Your task to perform on an android device: Go to sound settings Image 0: 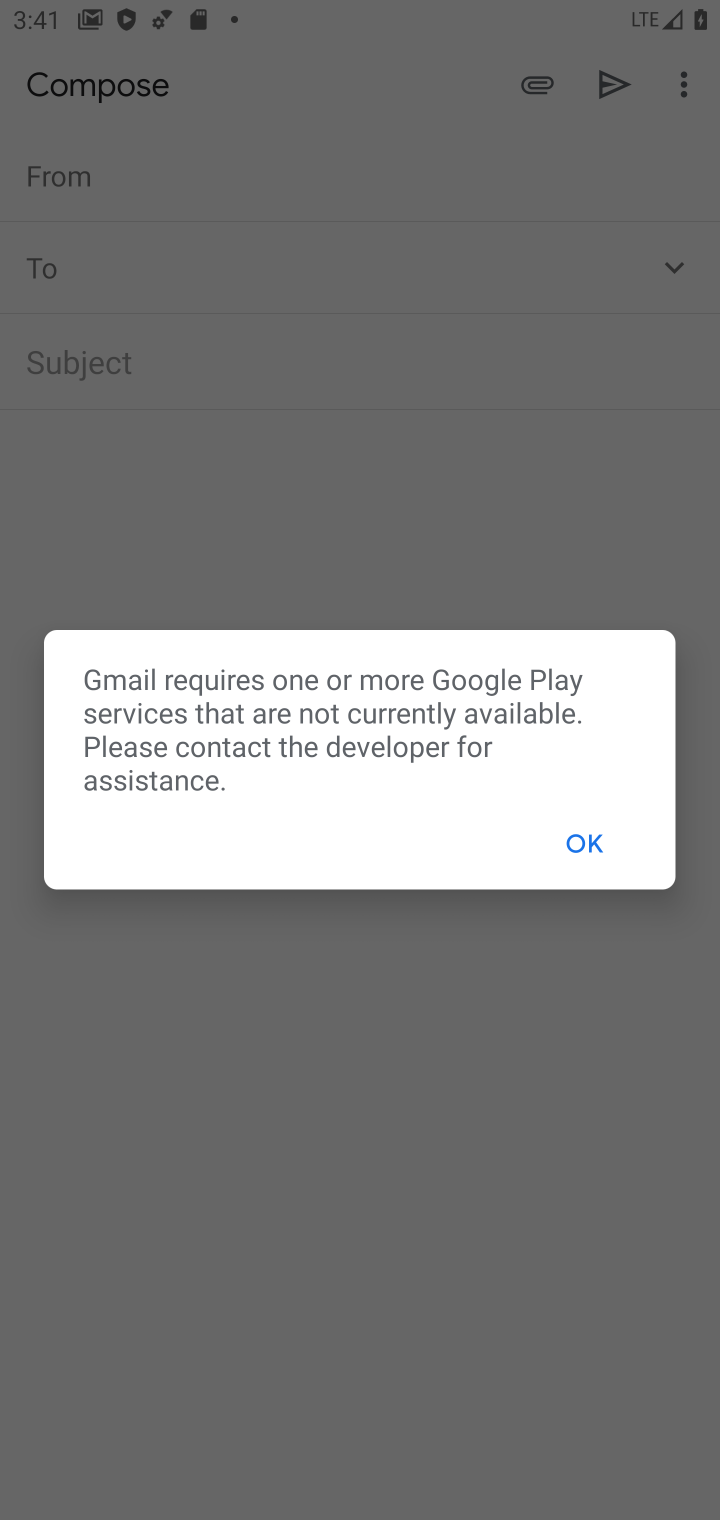
Step 0: click (364, 355)
Your task to perform on an android device: Go to sound settings Image 1: 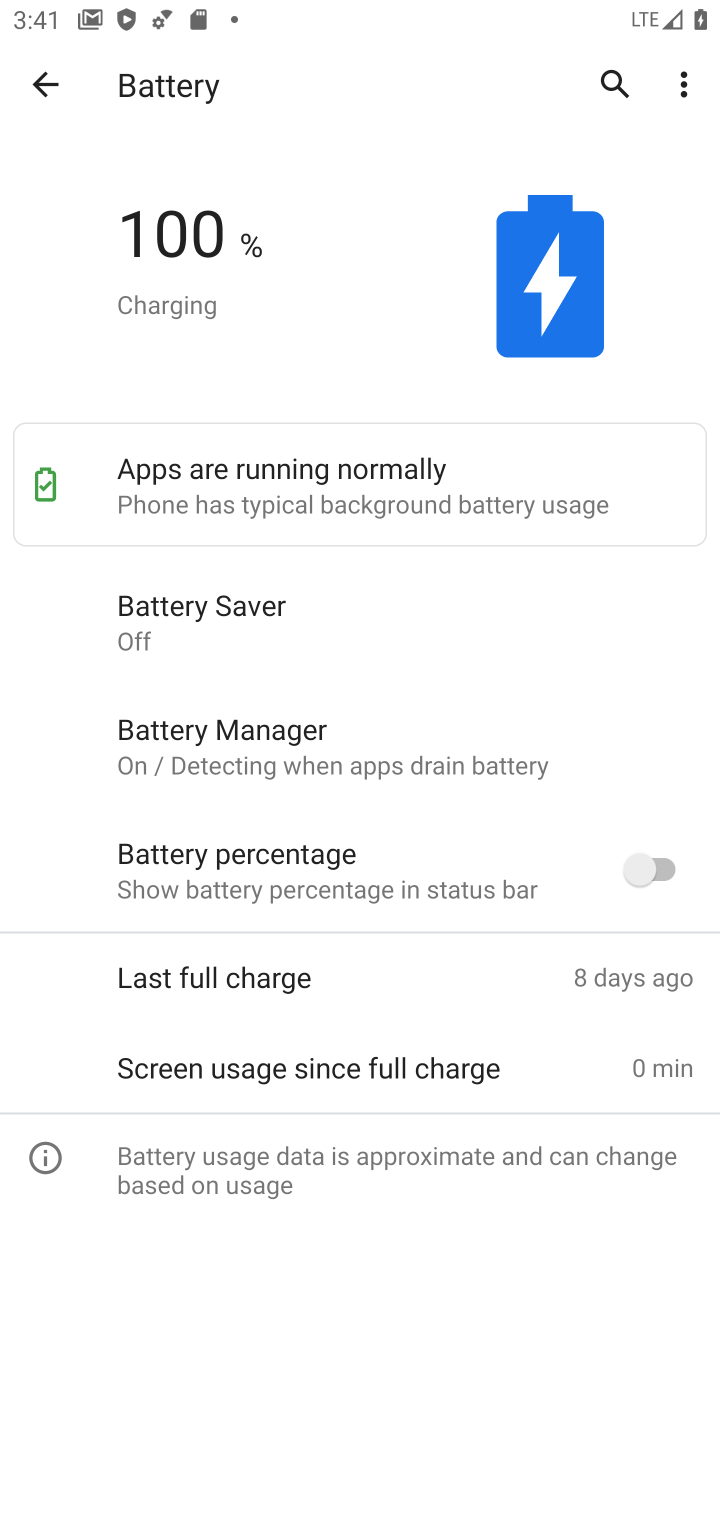
Step 1: drag from (446, 1322) to (419, 445)
Your task to perform on an android device: Go to sound settings Image 2: 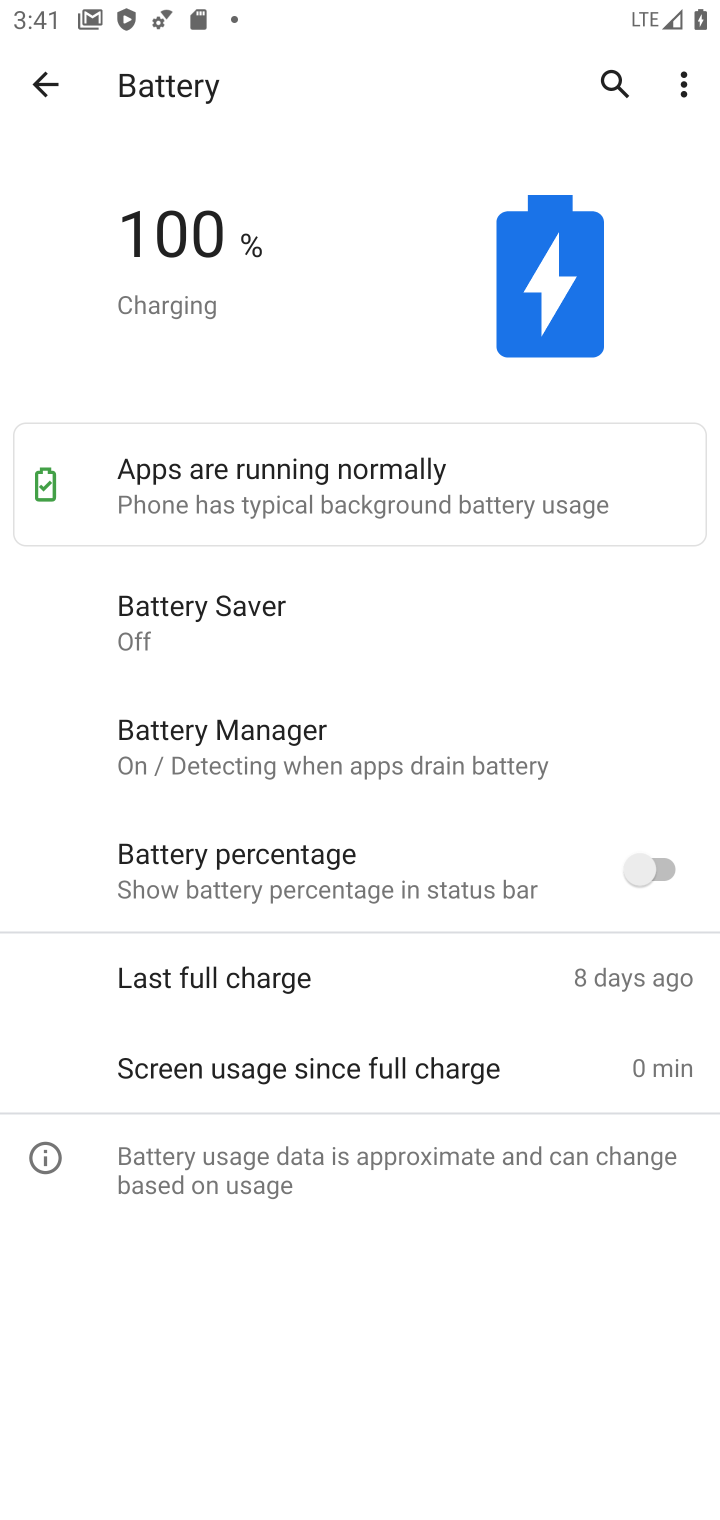
Step 2: click (31, 78)
Your task to perform on an android device: Go to sound settings Image 3: 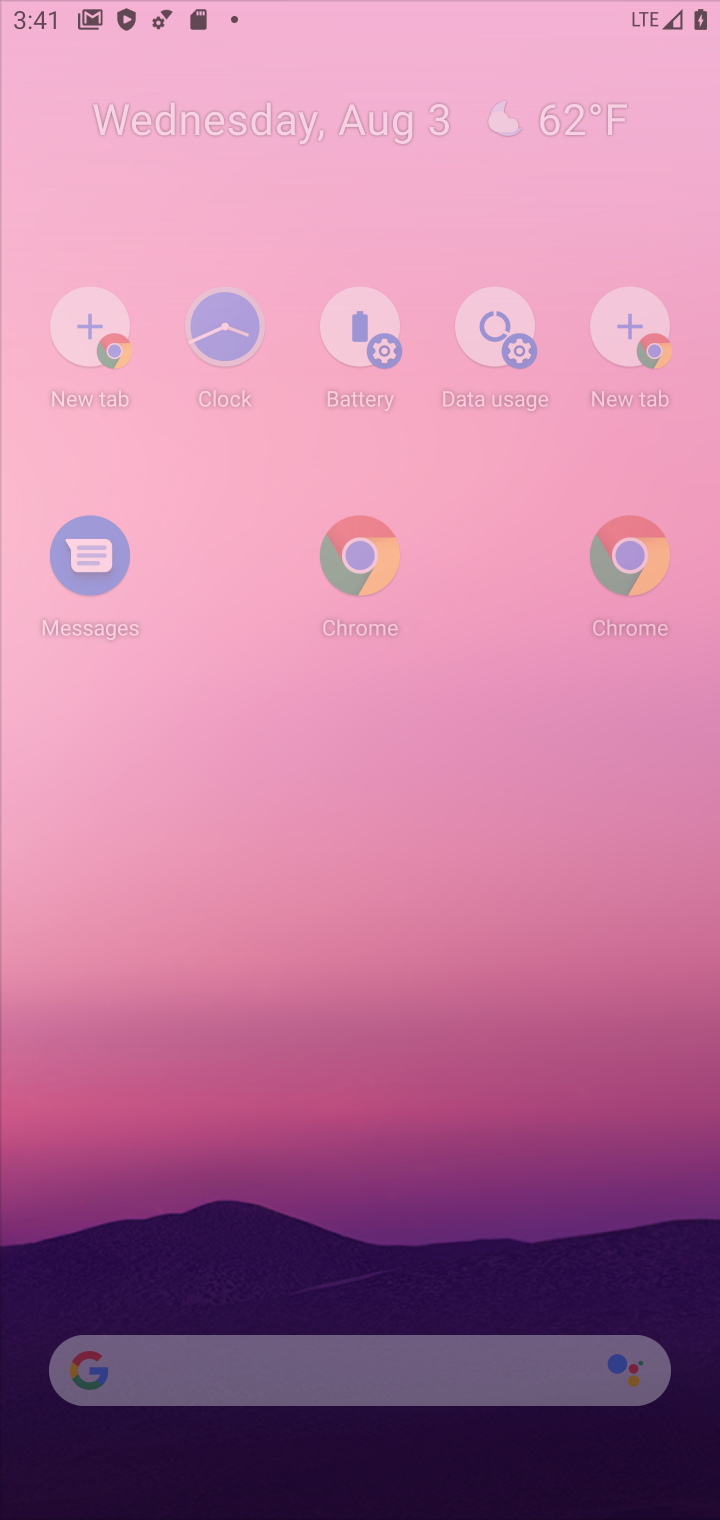
Step 3: click (51, 75)
Your task to perform on an android device: Go to sound settings Image 4: 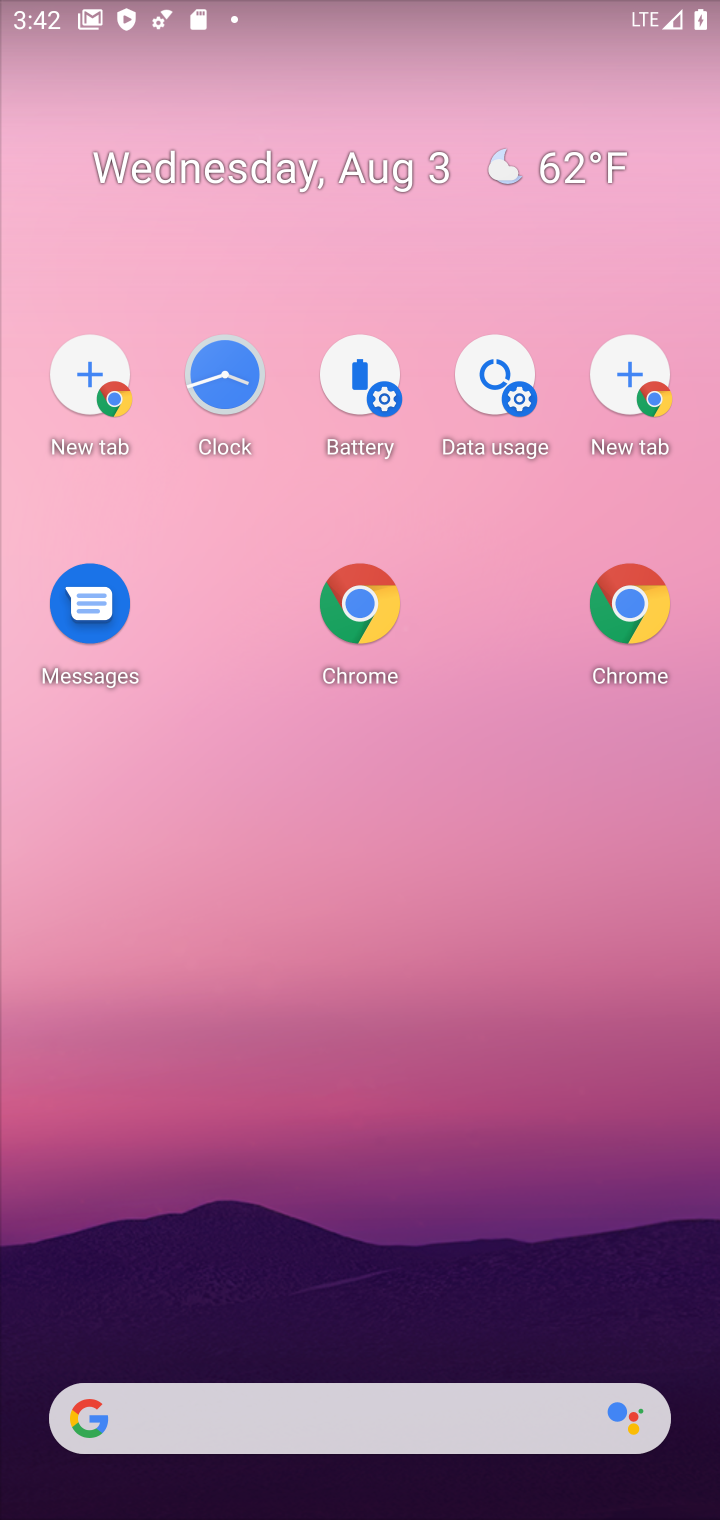
Step 4: click (317, 807)
Your task to perform on an android device: Go to sound settings Image 5: 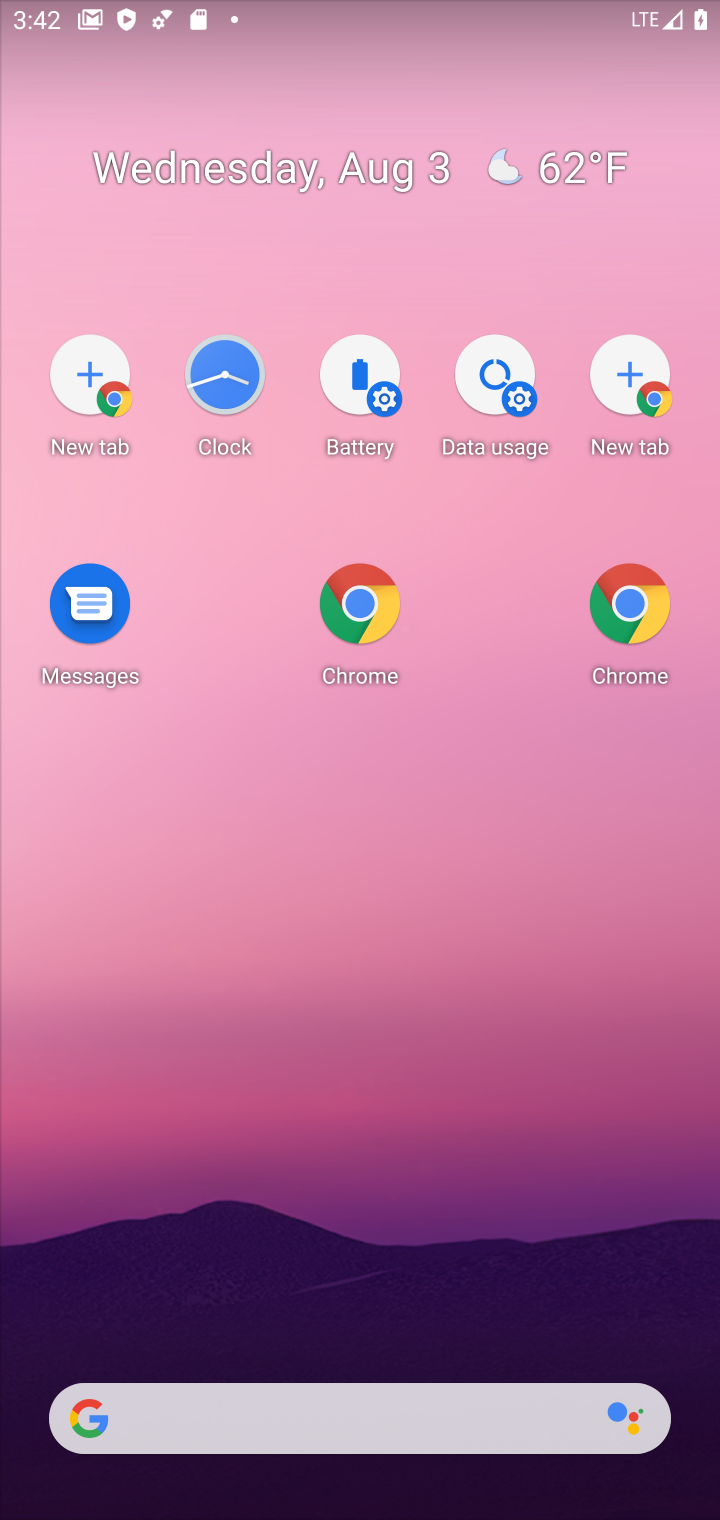
Step 5: drag from (495, 1078) to (505, 308)
Your task to perform on an android device: Go to sound settings Image 6: 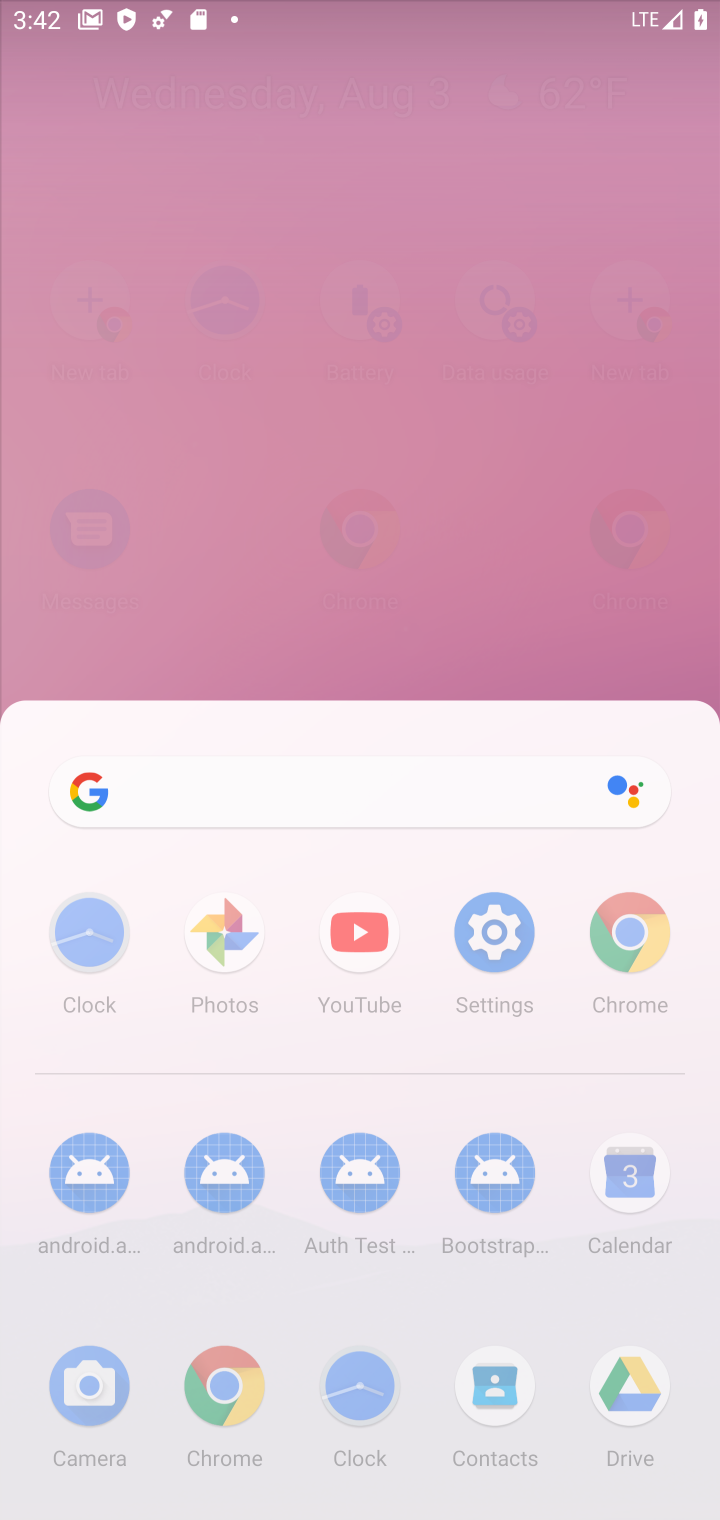
Step 6: click (200, 261)
Your task to perform on an android device: Go to sound settings Image 7: 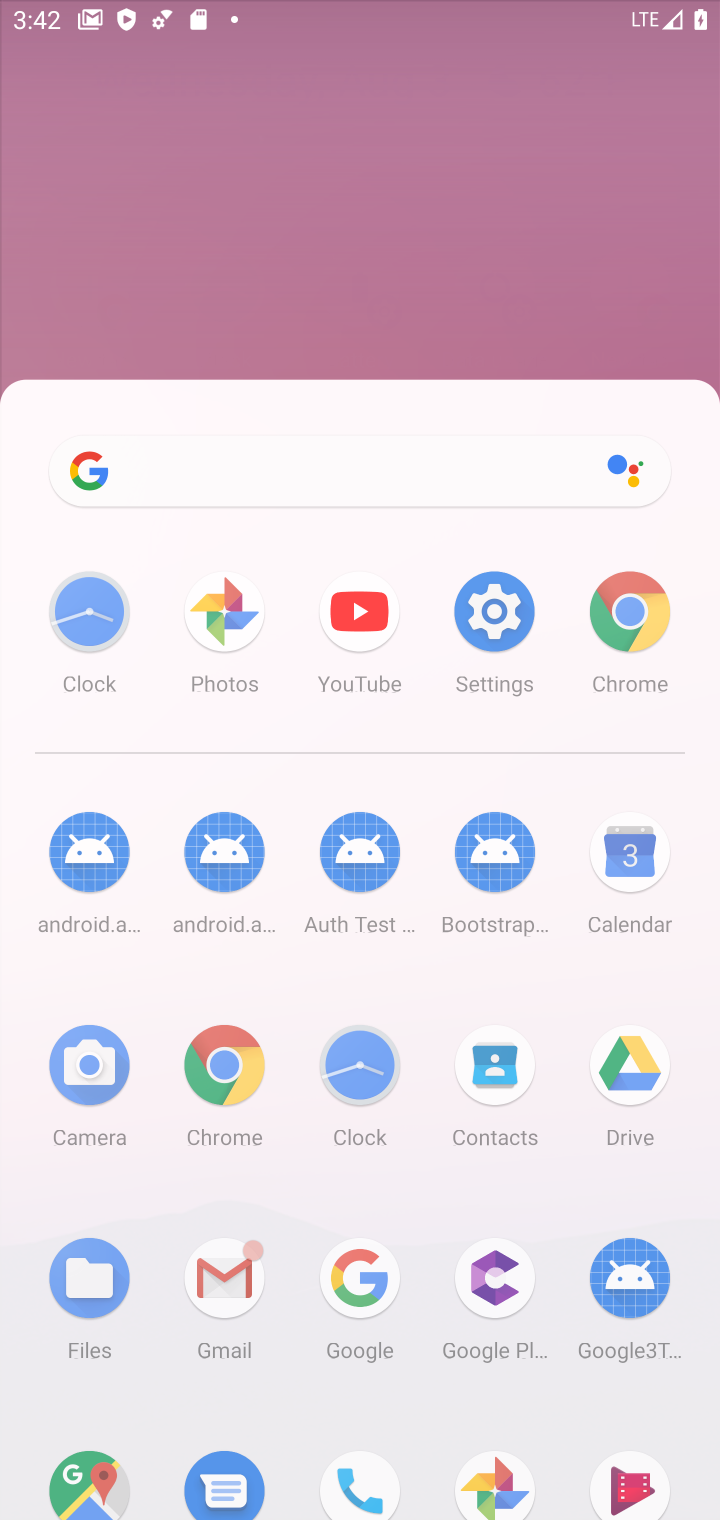
Step 7: click (223, 639)
Your task to perform on an android device: Go to sound settings Image 8: 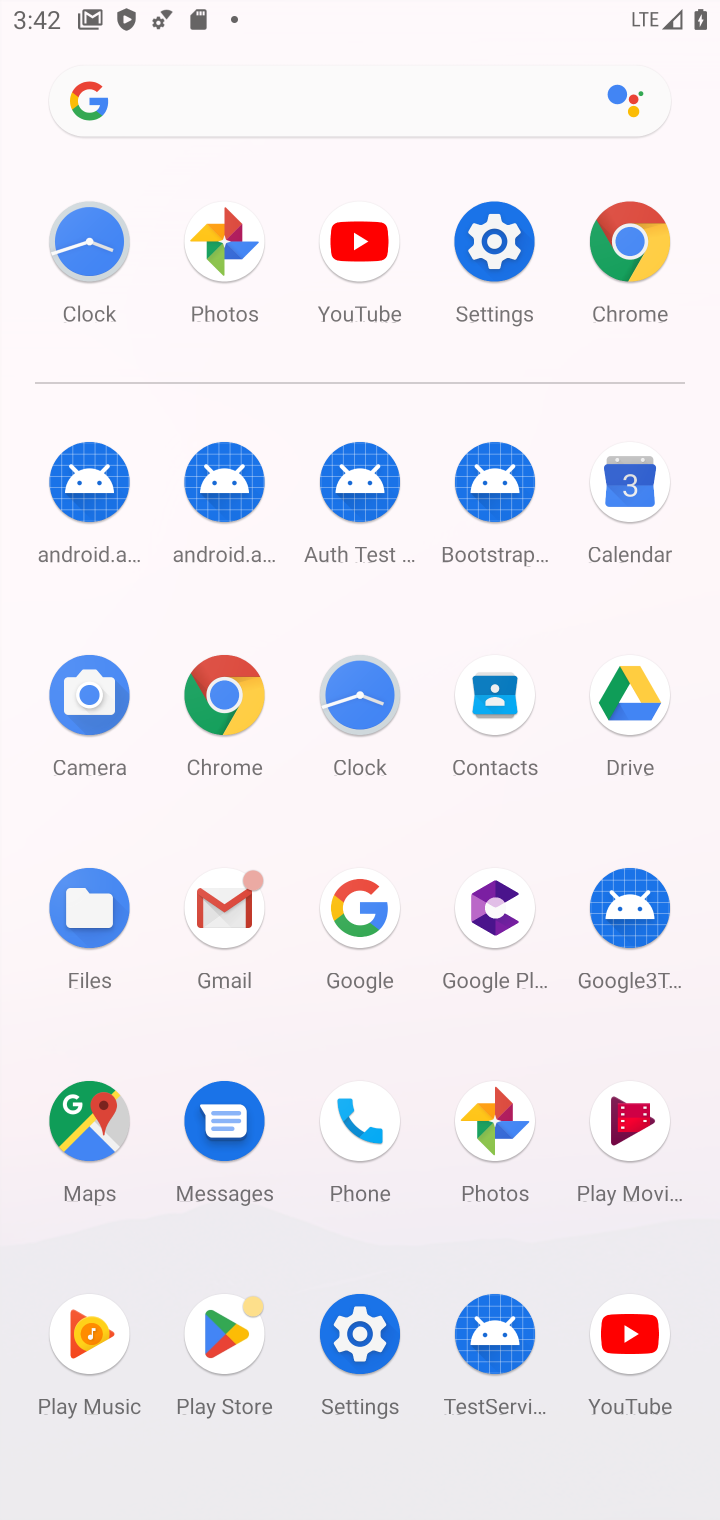
Step 8: click (354, 1341)
Your task to perform on an android device: Go to sound settings Image 9: 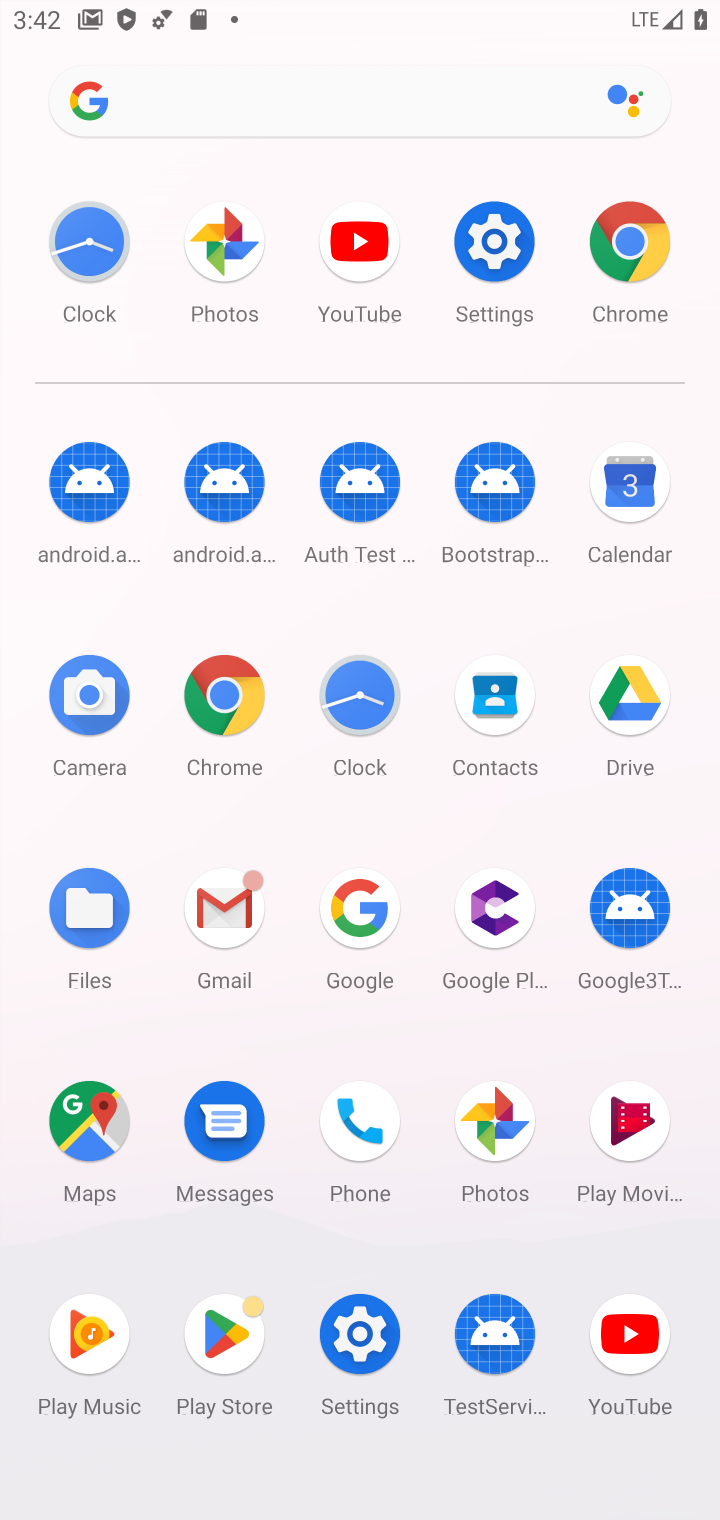
Step 9: click (356, 1343)
Your task to perform on an android device: Go to sound settings Image 10: 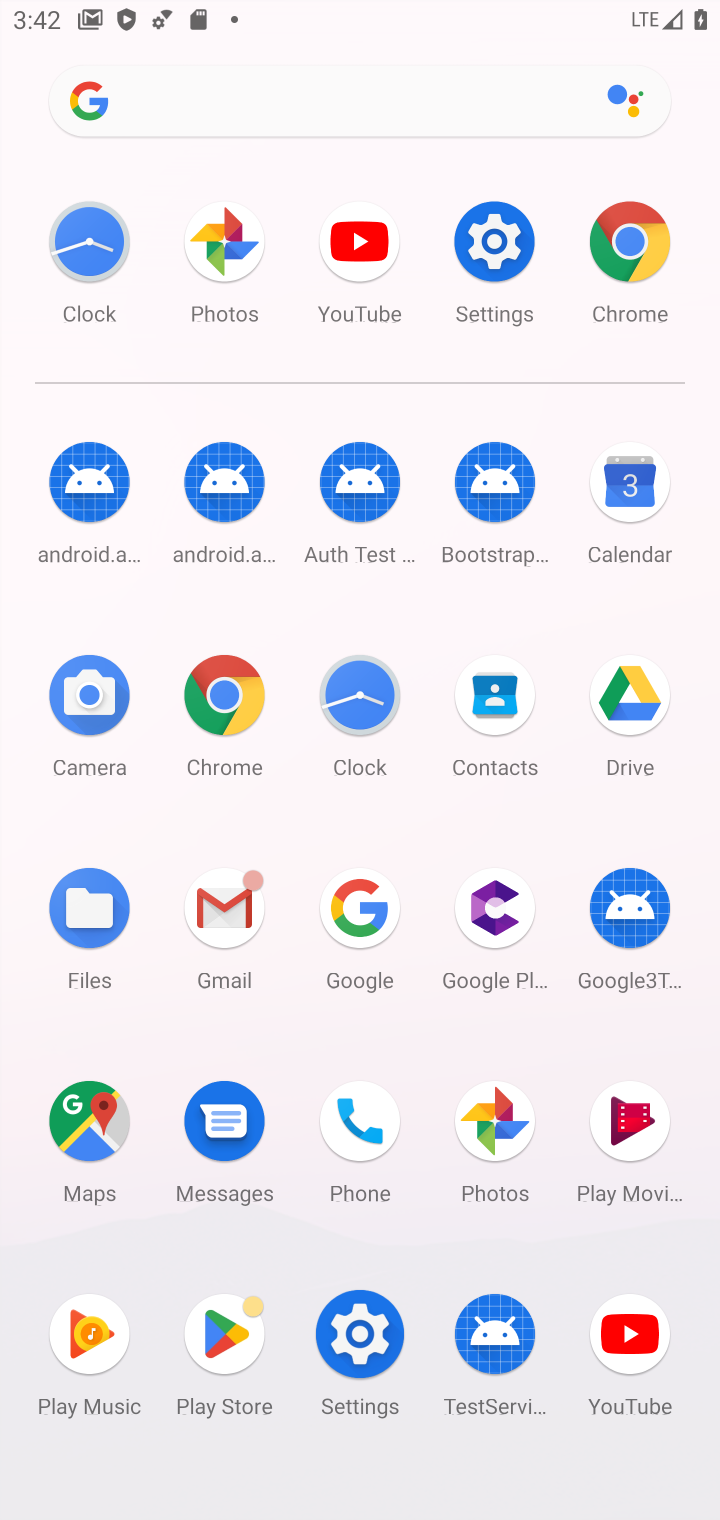
Step 10: click (356, 1343)
Your task to perform on an android device: Go to sound settings Image 11: 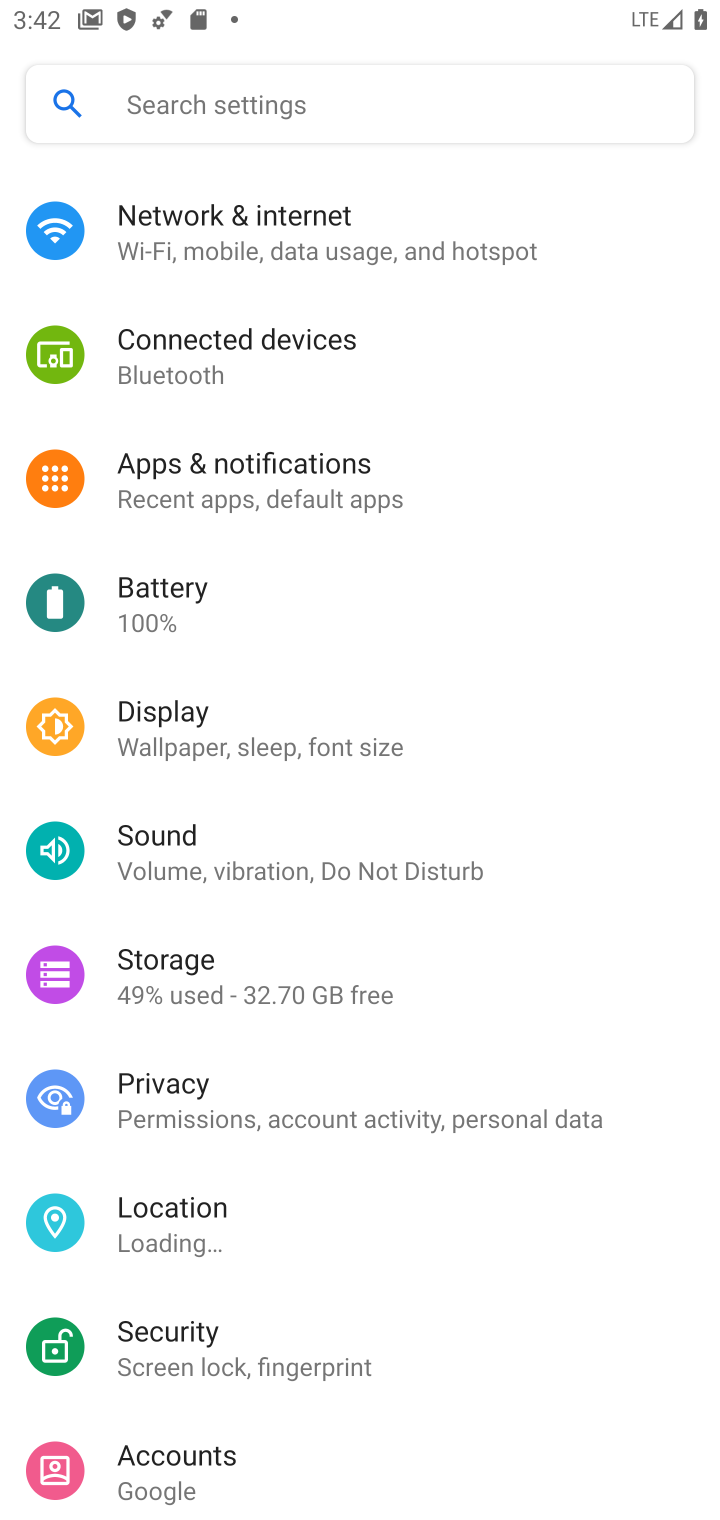
Step 11: click (358, 1341)
Your task to perform on an android device: Go to sound settings Image 12: 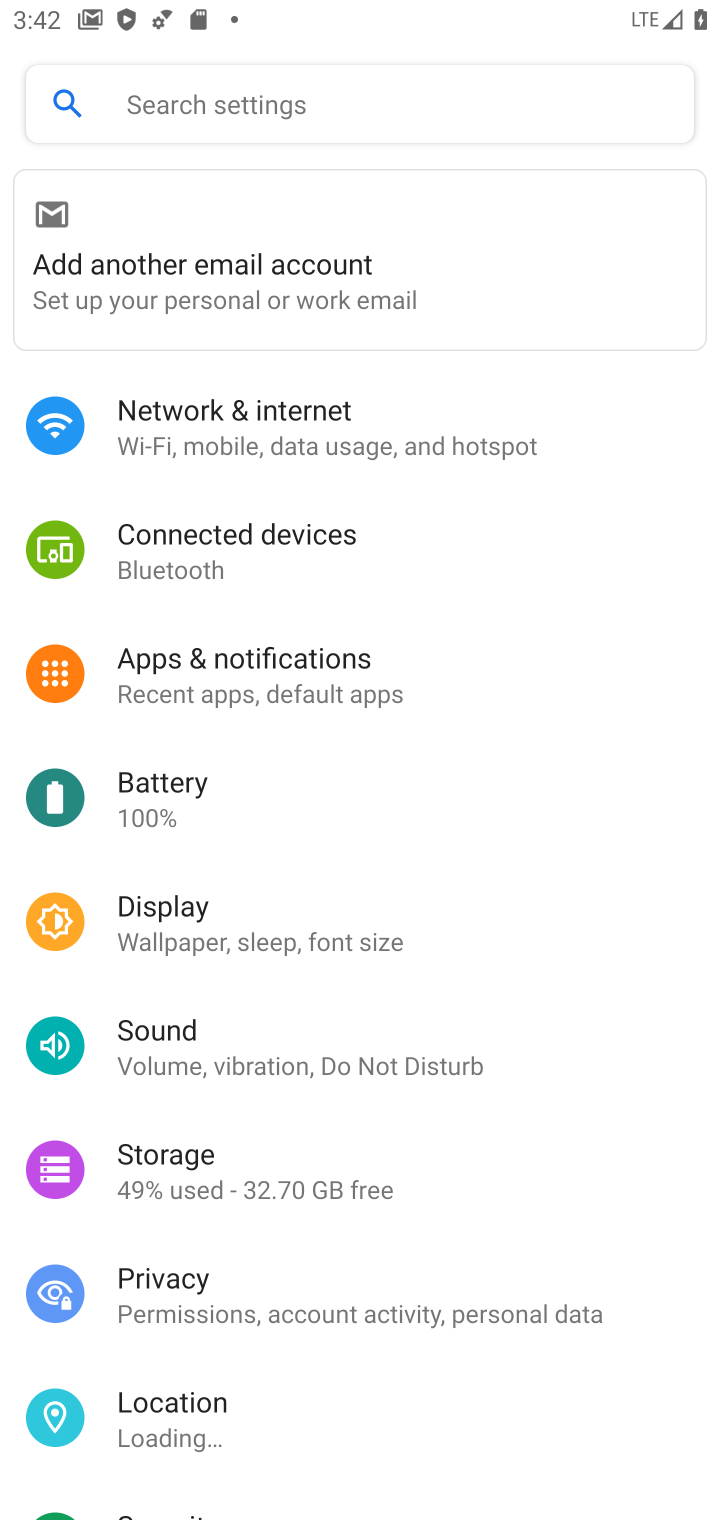
Step 12: click (367, 1334)
Your task to perform on an android device: Go to sound settings Image 13: 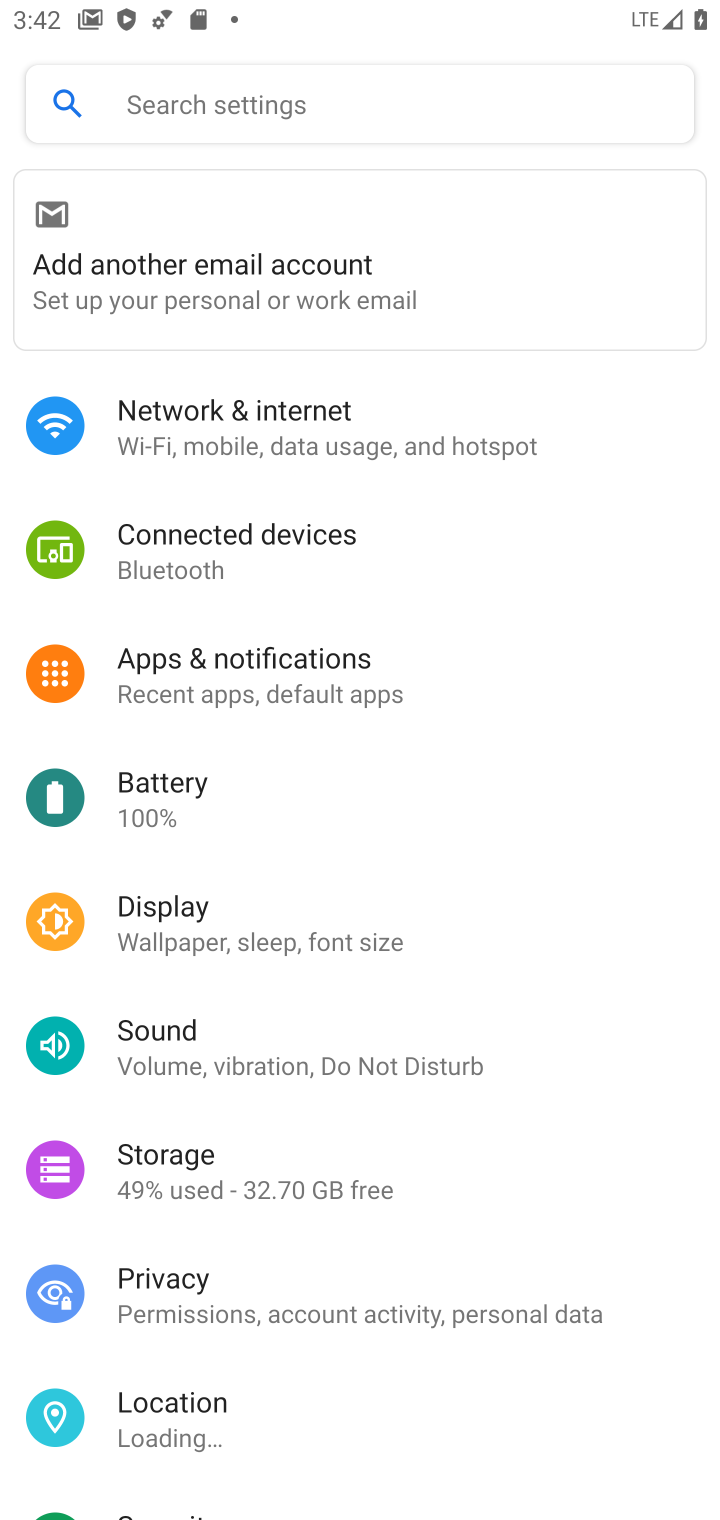
Step 13: click (184, 1027)
Your task to perform on an android device: Go to sound settings Image 14: 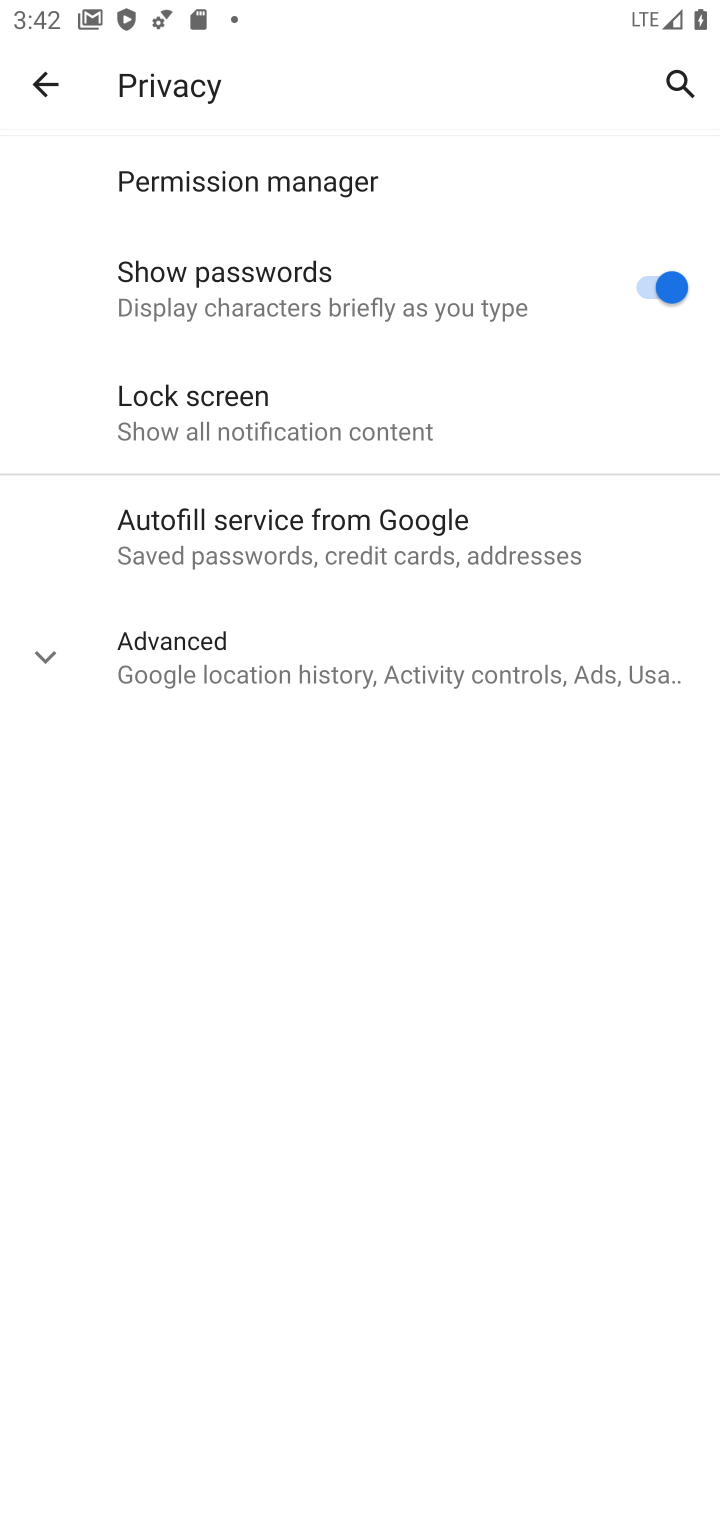
Step 14: click (196, 1062)
Your task to perform on an android device: Go to sound settings Image 15: 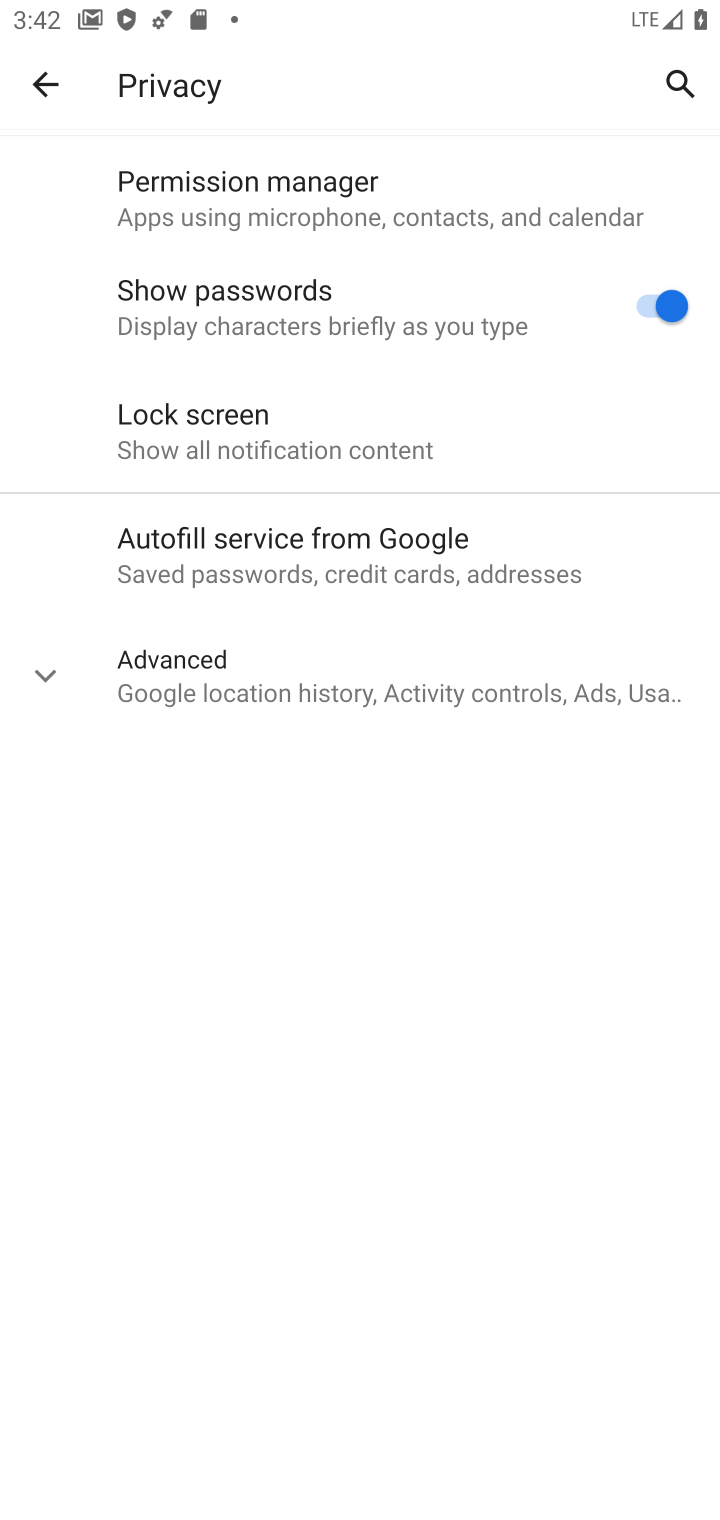
Step 15: click (196, 1062)
Your task to perform on an android device: Go to sound settings Image 16: 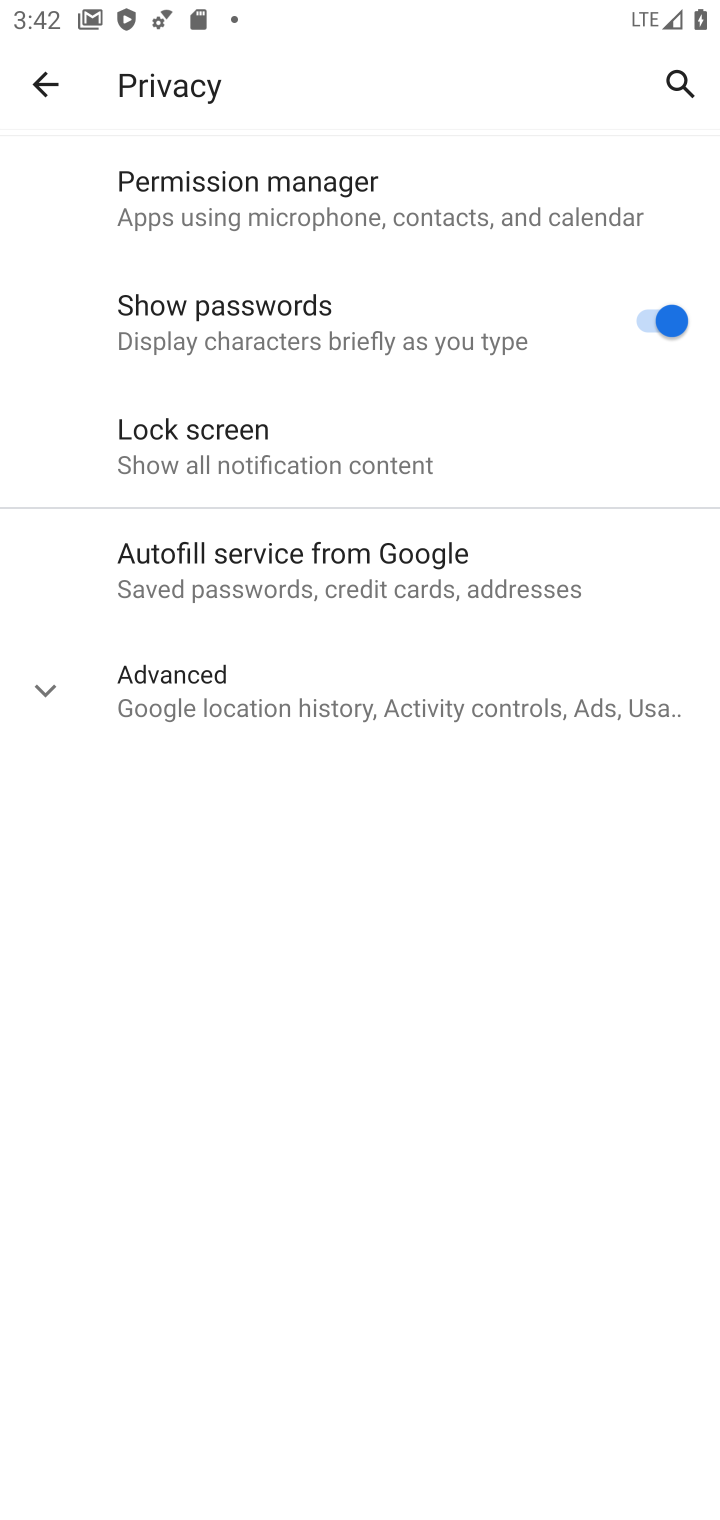
Step 16: task complete